Your task to perform on an android device: Go to sound settings Image 0: 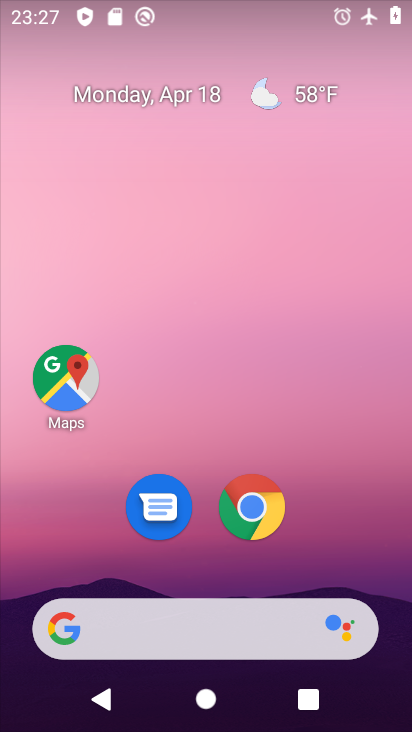
Step 0: drag from (263, 67) to (221, 432)
Your task to perform on an android device: Go to sound settings Image 1: 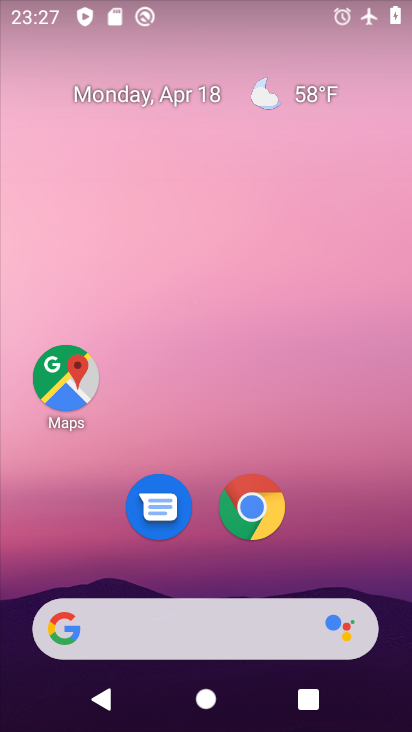
Step 1: drag from (253, 12) to (94, 568)
Your task to perform on an android device: Go to sound settings Image 2: 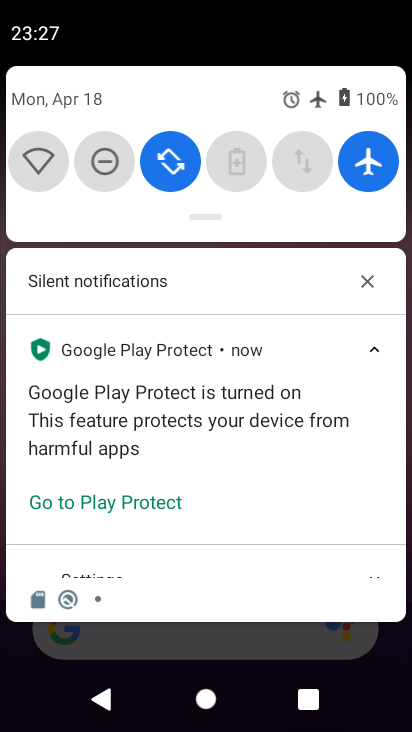
Step 2: drag from (179, 117) to (284, 512)
Your task to perform on an android device: Go to sound settings Image 3: 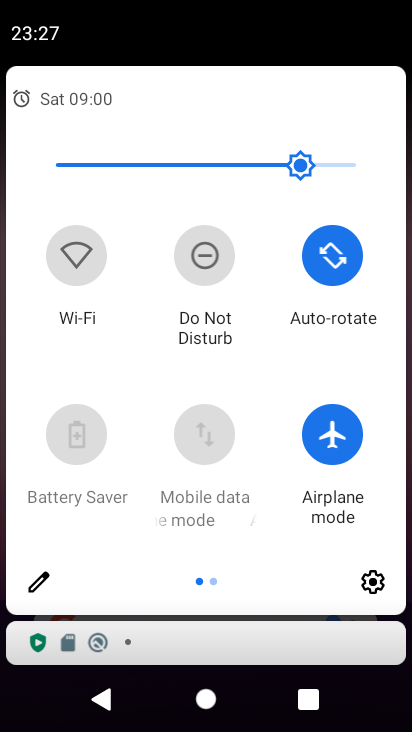
Step 3: click (372, 586)
Your task to perform on an android device: Go to sound settings Image 4: 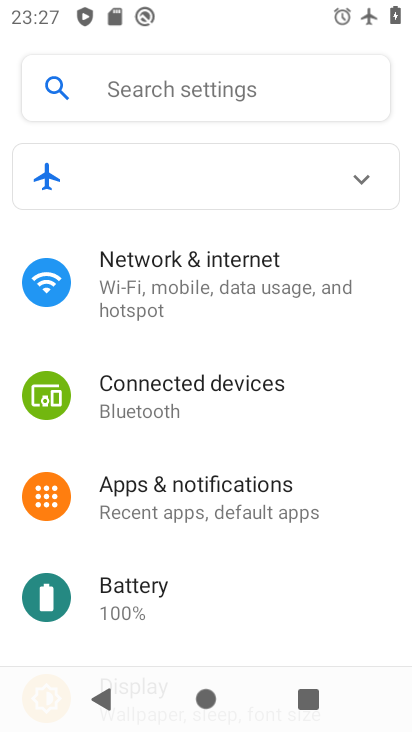
Step 4: drag from (131, 599) to (126, 167)
Your task to perform on an android device: Go to sound settings Image 5: 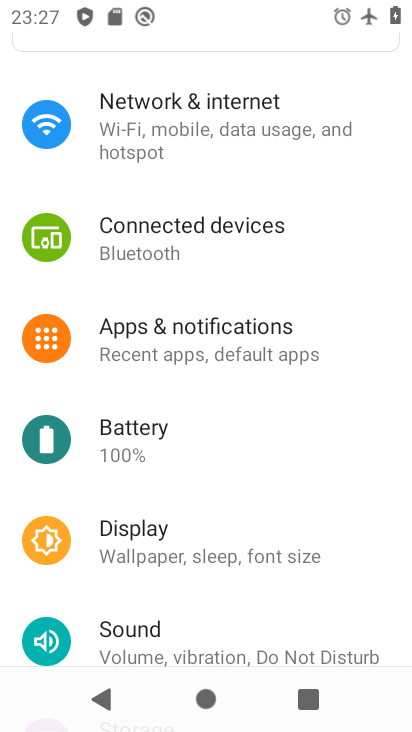
Step 5: drag from (123, 571) to (170, 171)
Your task to perform on an android device: Go to sound settings Image 6: 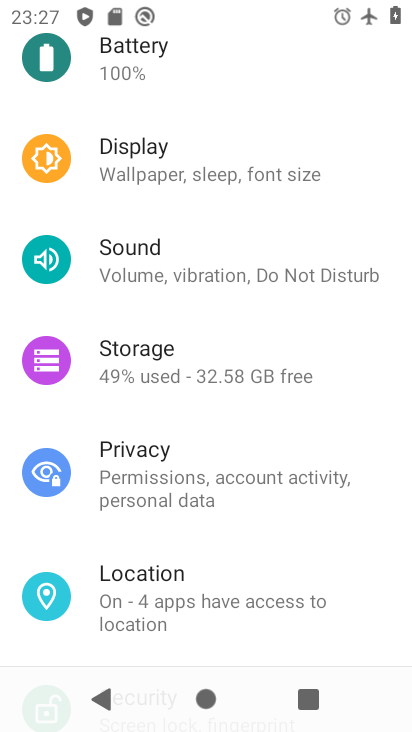
Step 6: click (234, 271)
Your task to perform on an android device: Go to sound settings Image 7: 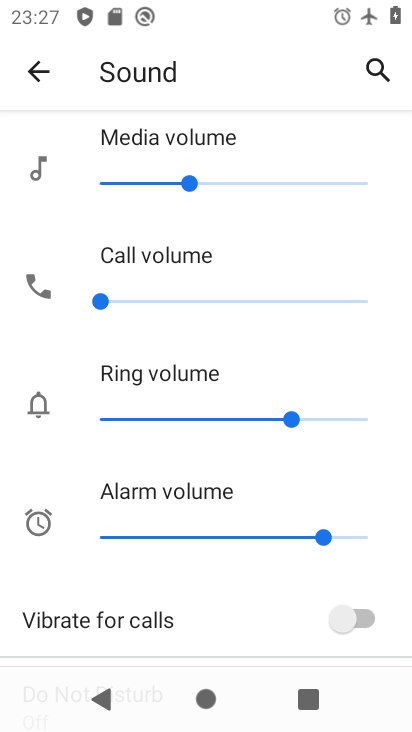
Step 7: task complete